Your task to perform on an android device: Open settings Image 0: 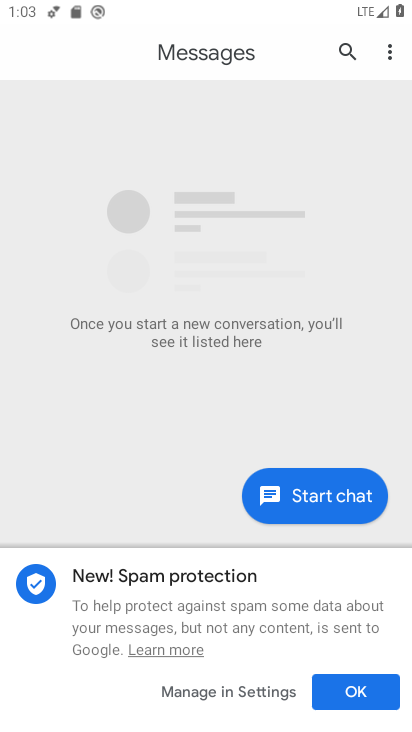
Step 0: press home button
Your task to perform on an android device: Open settings Image 1: 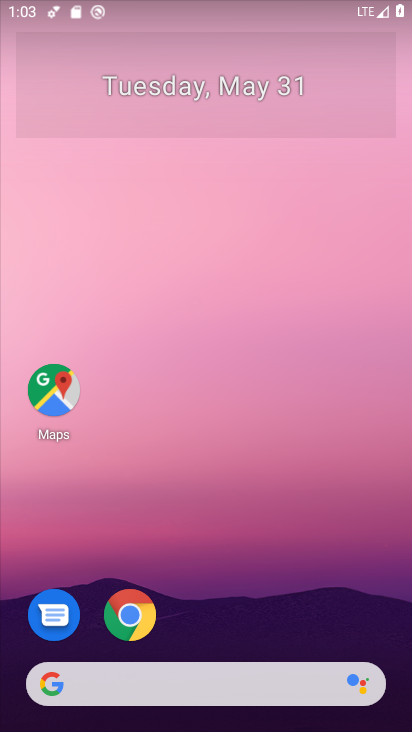
Step 1: drag from (233, 601) to (189, 2)
Your task to perform on an android device: Open settings Image 2: 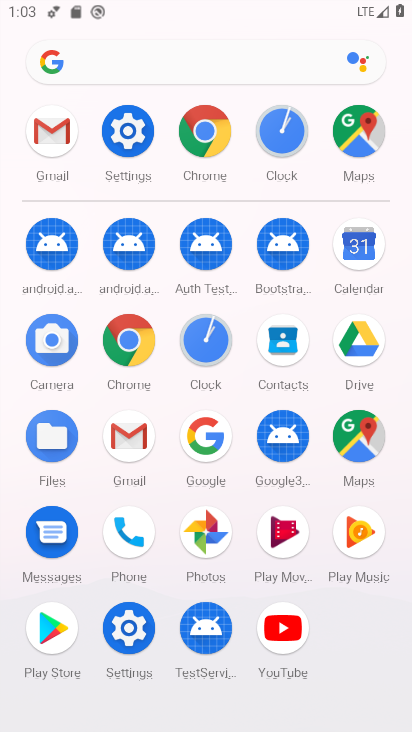
Step 2: click (130, 151)
Your task to perform on an android device: Open settings Image 3: 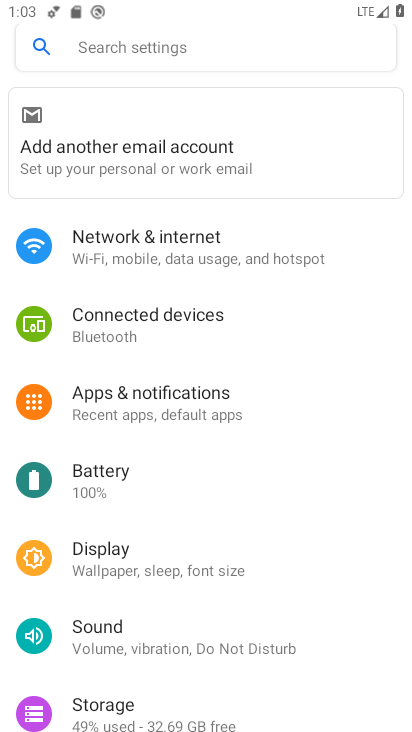
Step 3: task complete